Your task to perform on an android device: Open Reddit.com Image 0: 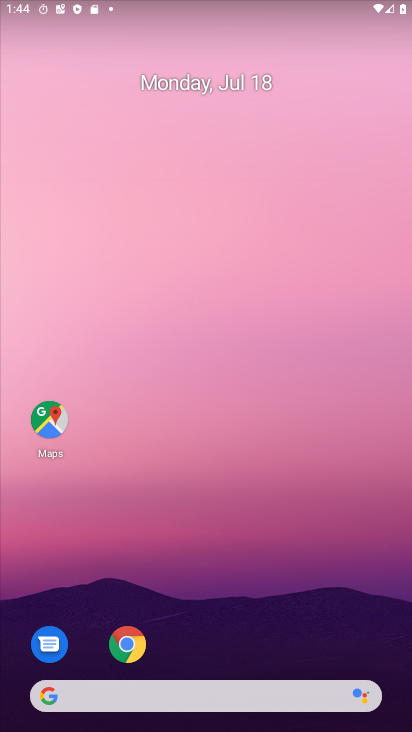
Step 0: click (131, 638)
Your task to perform on an android device: Open Reddit.com Image 1: 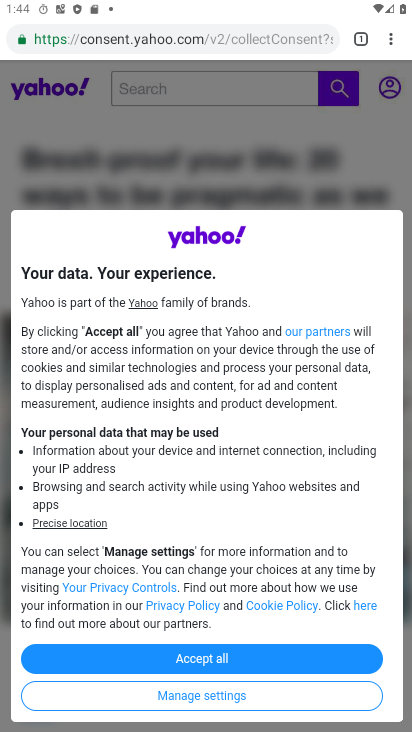
Step 1: click (122, 50)
Your task to perform on an android device: Open Reddit.com Image 2: 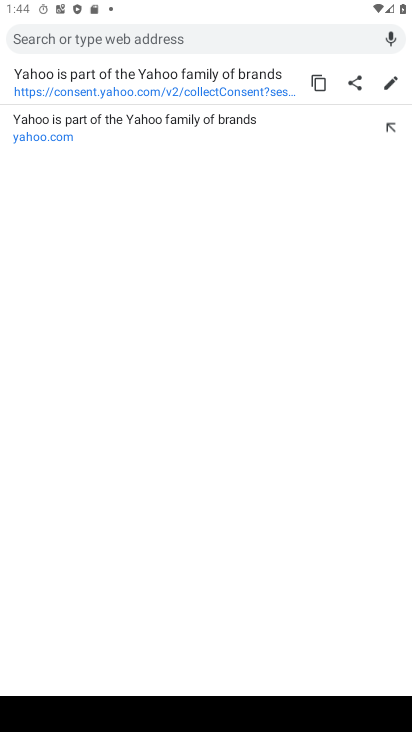
Step 2: type "Reddit.com"
Your task to perform on an android device: Open Reddit.com Image 3: 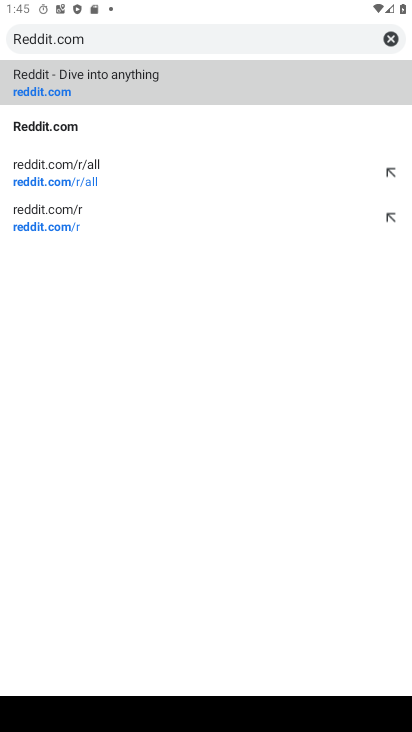
Step 3: click (93, 67)
Your task to perform on an android device: Open Reddit.com Image 4: 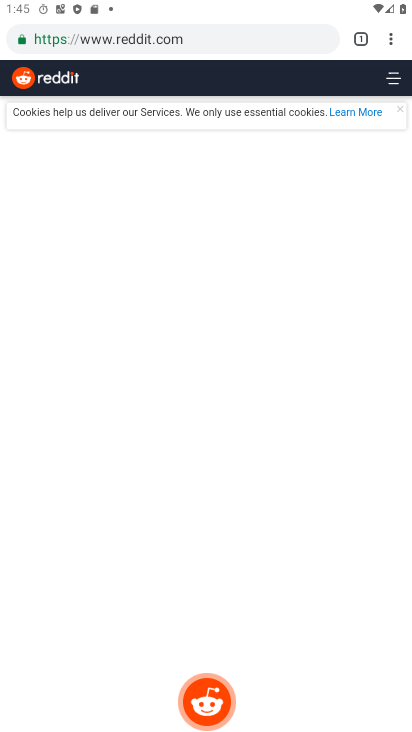
Step 4: task complete